Your task to perform on an android device: turn off airplane mode Image 0: 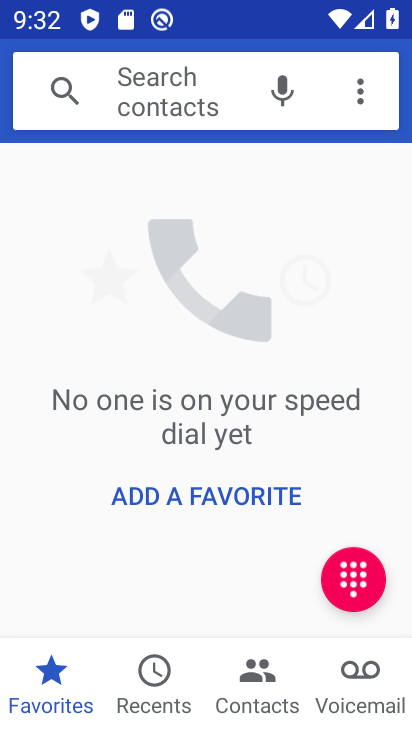
Step 0: drag from (353, 14) to (298, 572)
Your task to perform on an android device: turn off airplane mode Image 1: 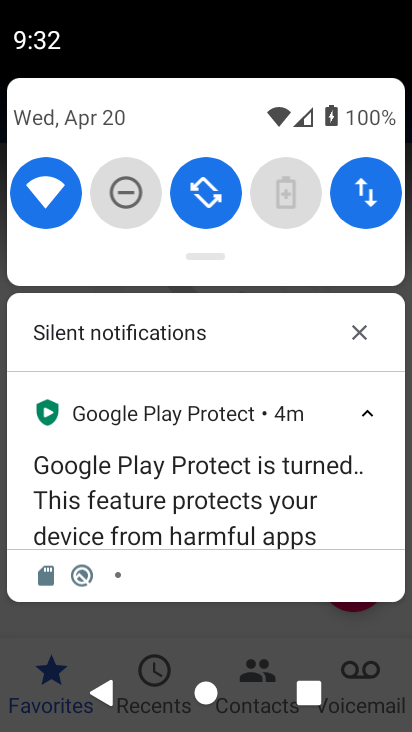
Step 1: task complete